Your task to perform on an android device: all mails in gmail Image 0: 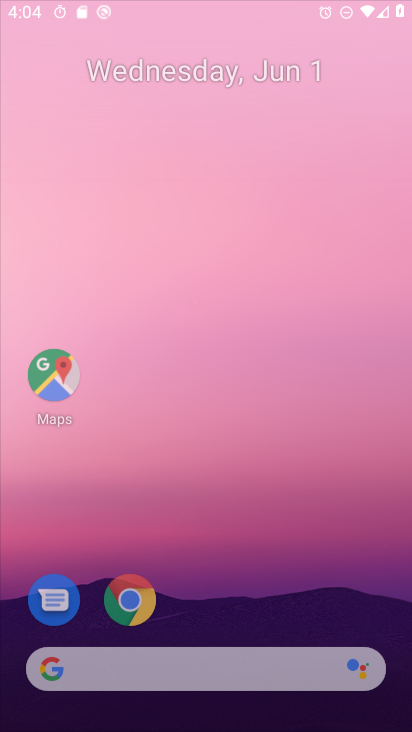
Step 0: click (343, 0)
Your task to perform on an android device: all mails in gmail Image 1: 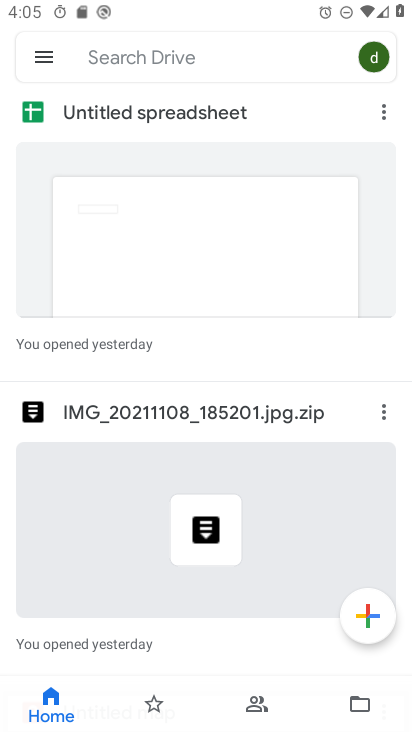
Step 1: press home button
Your task to perform on an android device: all mails in gmail Image 2: 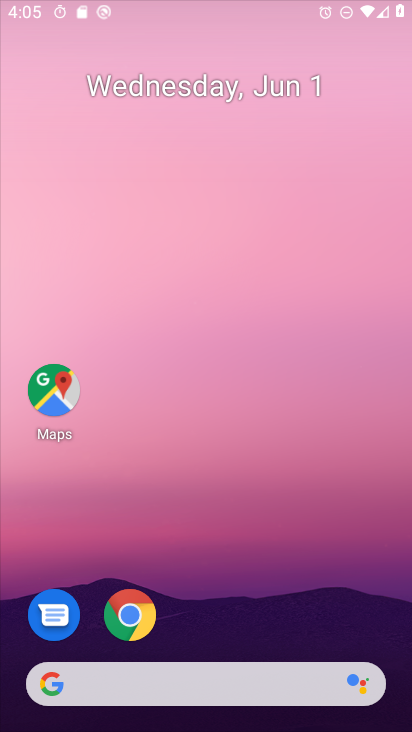
Step 2: drag from (326, 660) to (384, 3)
Your task to perform on an android device: all mails in gmail Image 3: 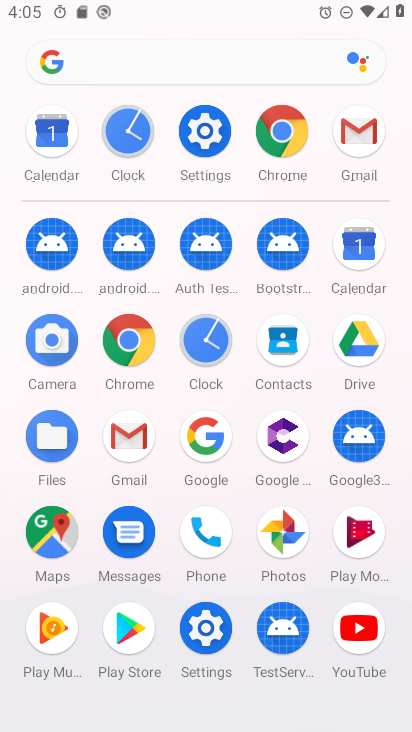
Step 3: click (126, 430)
Your task to perform on an android device: all mails in gmail Image 4: 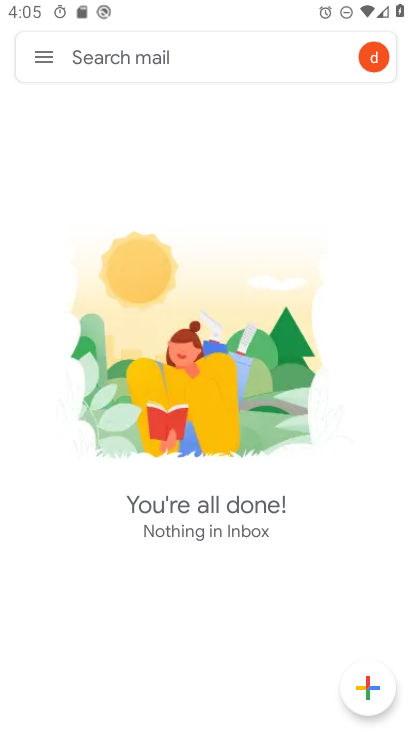
Step 4: click (41, 56)
Your task to perform on an android device: all mails in gmail Image 5: 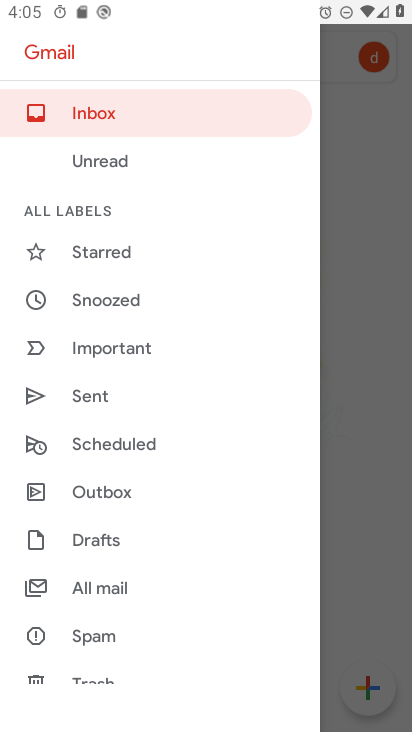
Step 5: click (166, 593)
Your task to perform on an android device: all mails in gmail Image 6: 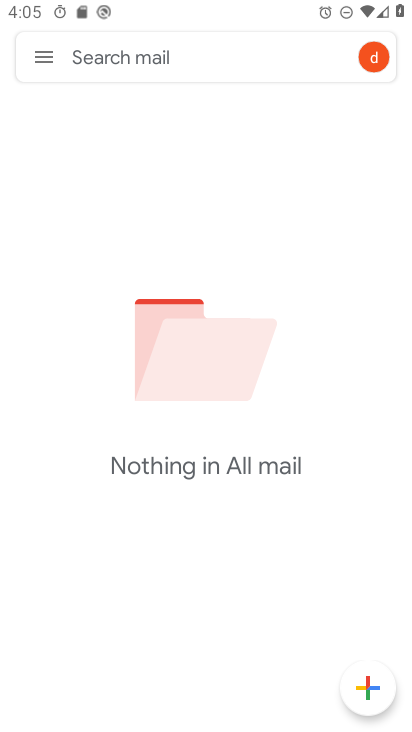
Step 6: task complete